Your task to perform on an android device: empty trash in the gmail app Image 0: 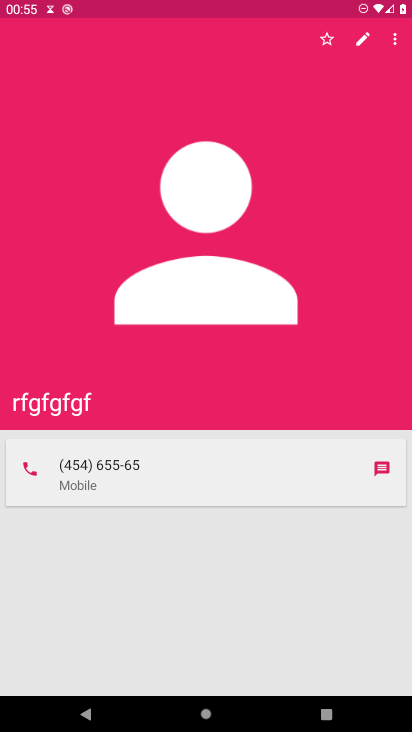
Step 0: press home button
Your task to perform on an android device: empty trash in the gmail app Image 1: 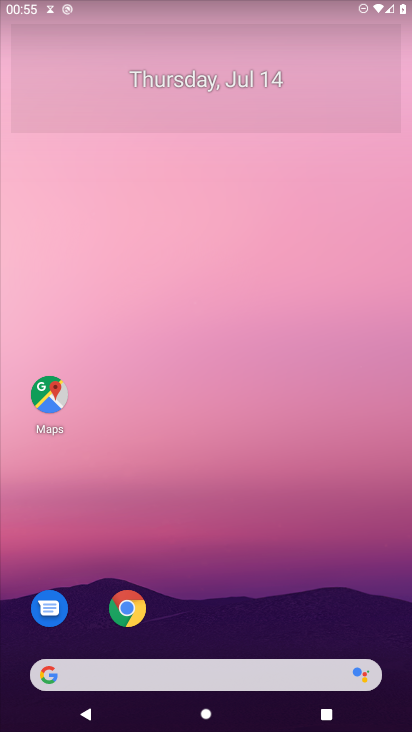
Step 1: drag from (245, 596) to (217, 90)
Your task to perform on an android device: empty trash in the gmail app Image 2: 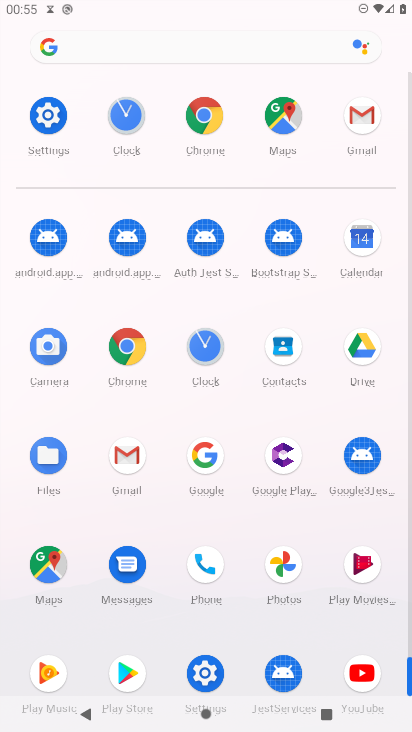
Step 2: click (357, 117)
Your task to perform on an android device: empty trash in the gmail app Image 3: 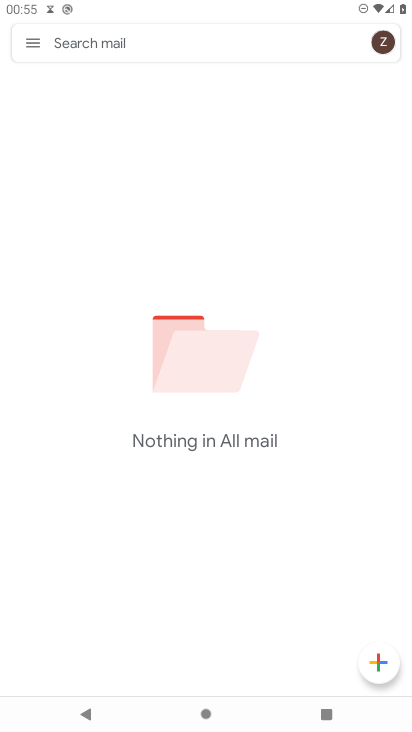
Step 3: click (27, 43)
Your task to perform on an android device: empty trash in the gmail app Image 4: 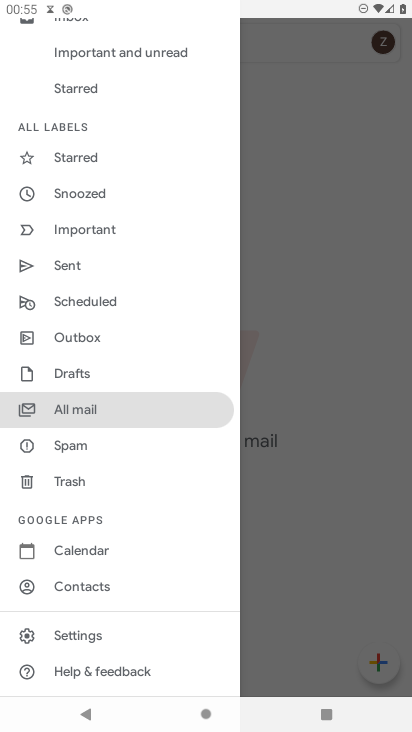
Step 4: click (82, 480)
Your task to perform on an android device: empty trash in the gmail app Image 5: 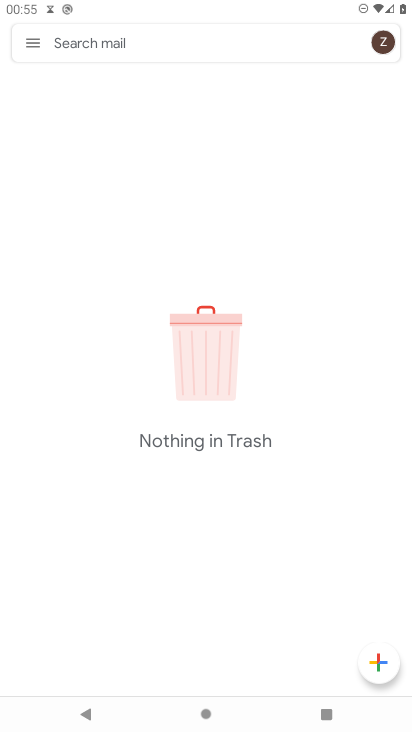
Step 5: task complete